Your task to perform on an android device: star an email in the gmail app Image 0: 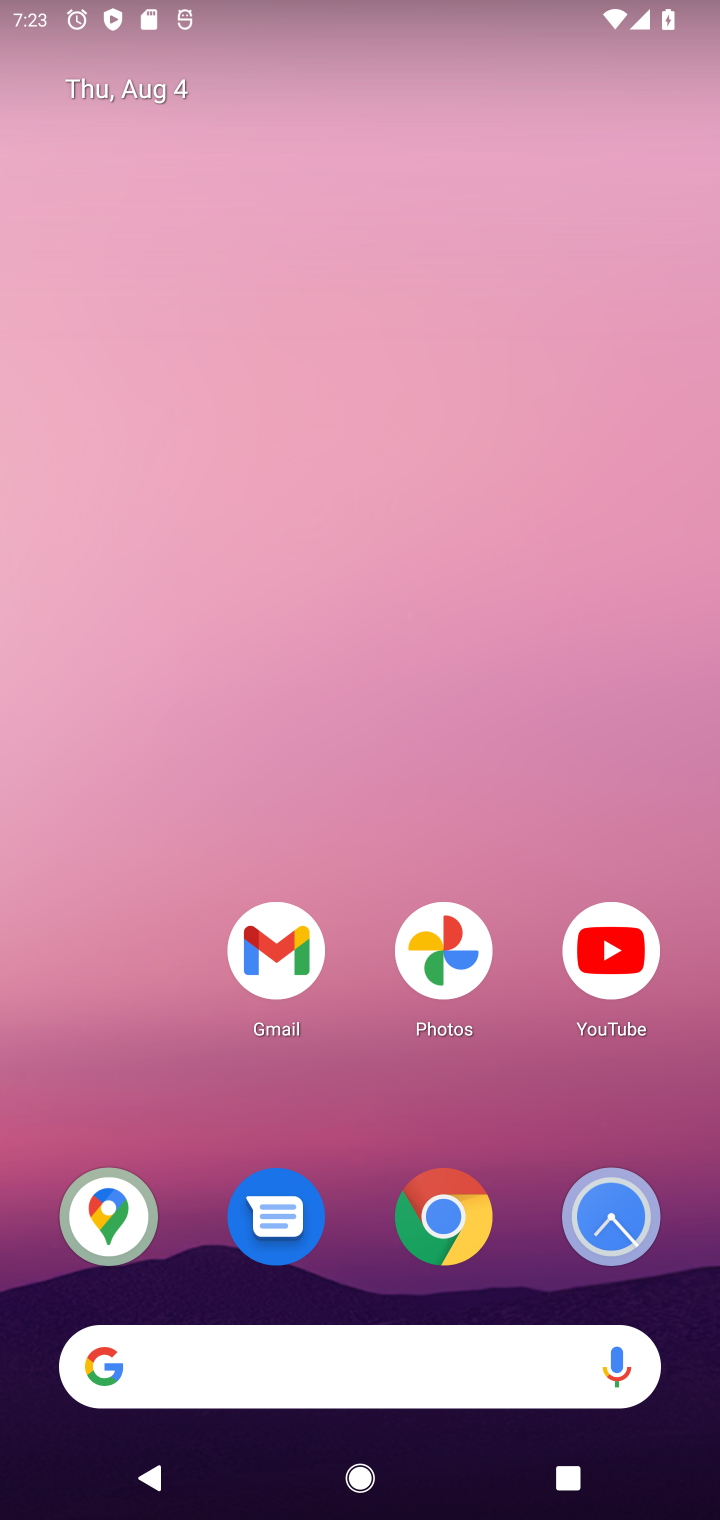
Step 0: press home button
Your task to perform on an android device: star an email in the gmail app Image 1: 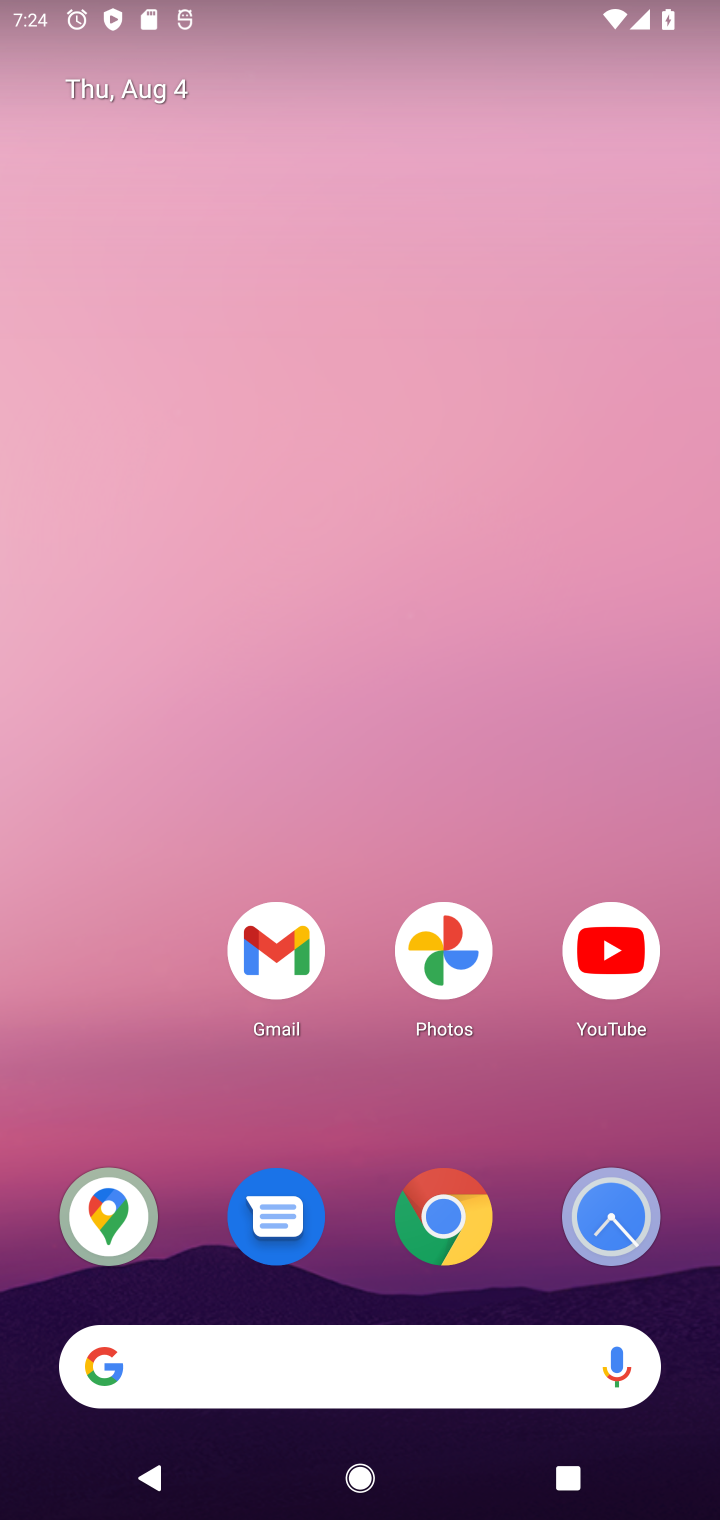
Step 1: click (286, 986)
Your task to perform on an android device: star an email in the gmail app Image 2: 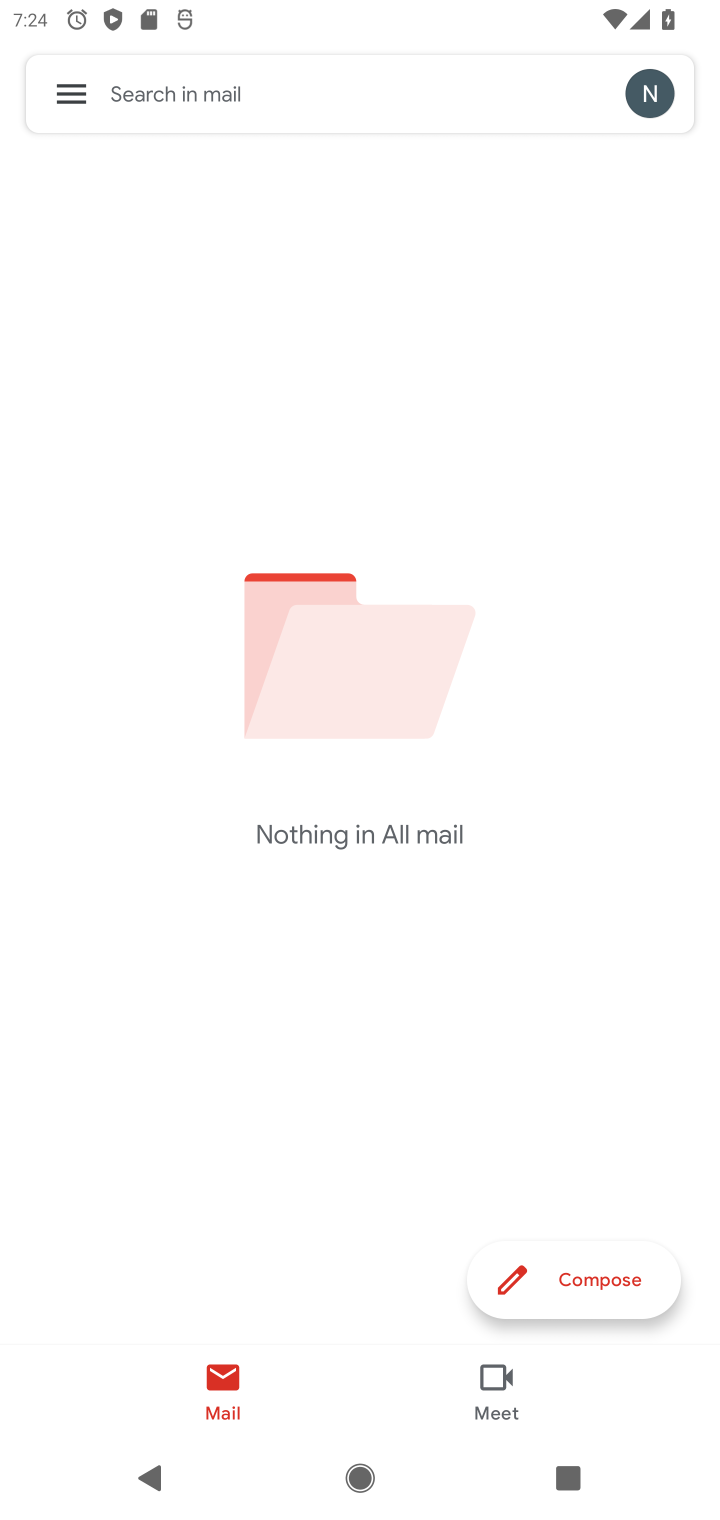
Step 2: task complete